Your task to perform on an android device: Is it going to rain this weekend? Image 0: 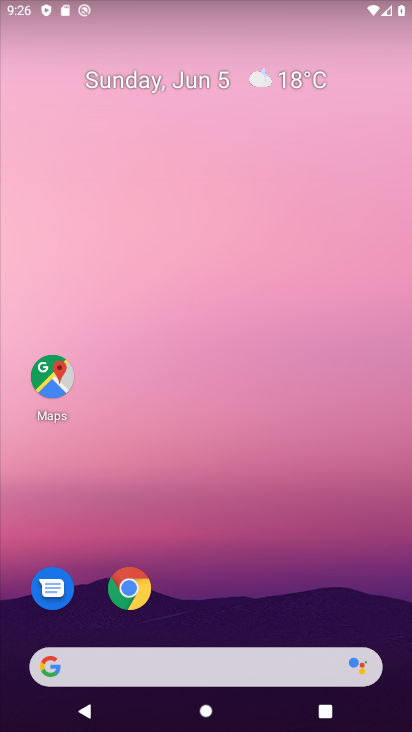
Step 0: click (277, 78)
Your task to perform on an android device: Is it going to rain this weekend? Image 1: 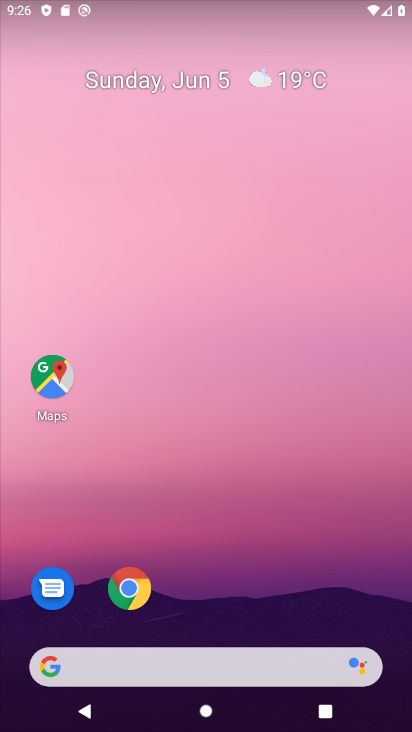
Step 1: click (292, 77)
Your task to perform on an android device: Is it going to rain this weekend? Image 2: 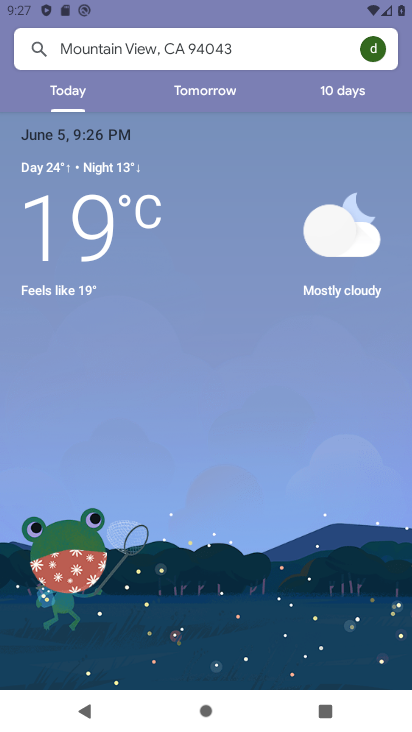
Step 2: click (192, 90)
Your task to perform on an android device: Is it going to rain this weekend? Image 3: 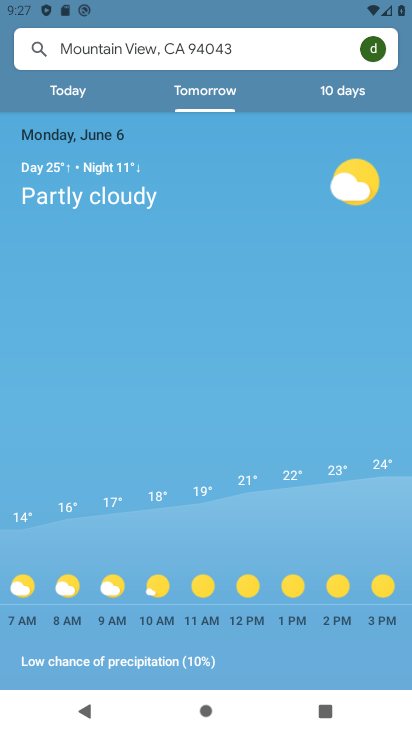
Step 3: task complete